Your task to perform on an android device: toggle priority inbox in the gmail app Image 0: 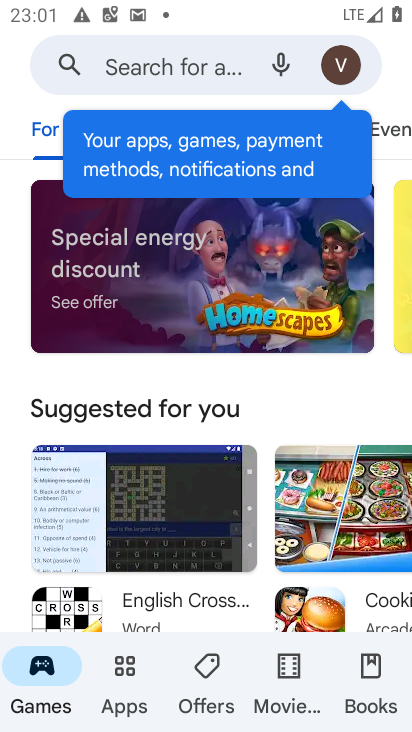
Step 0: press home button
Your task to perform on an android device: toggle priority inbox in the gmail app Image 1: 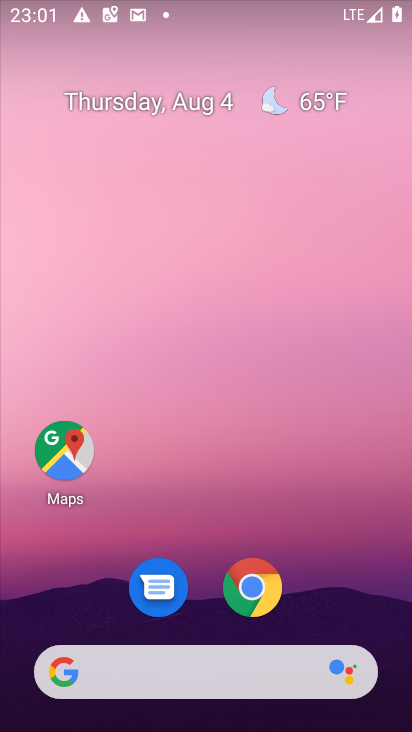
Step 1: drag from (184, 643) to (204, 310)
Your task to perform on an android device: toggle priority inbox in the gmail app Image 2: 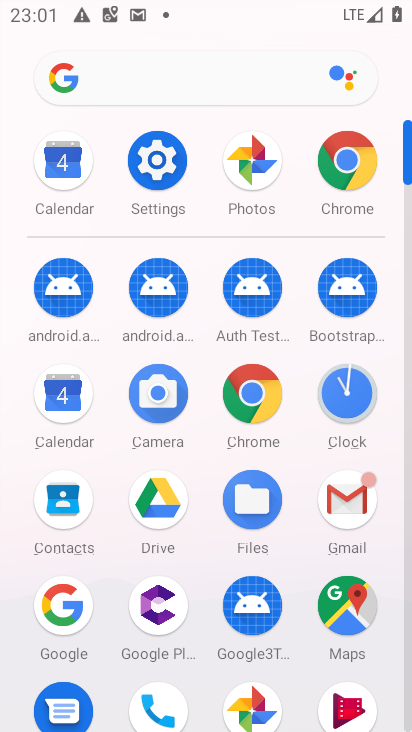
Step 2: click (347, 496)
Your task to perform on an android device: toggle priority inbox in the gmail app Image 3: 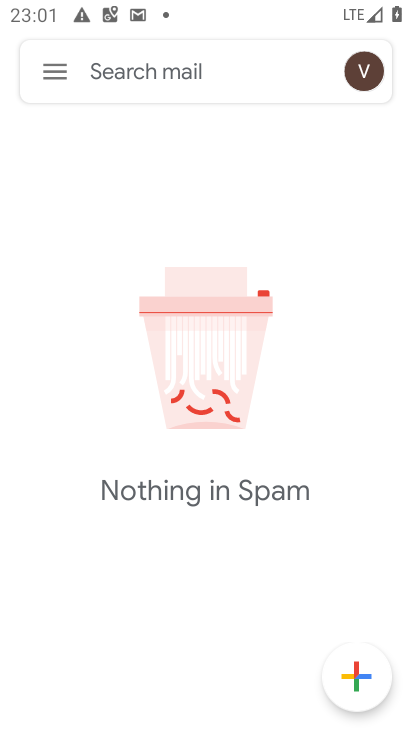
Step 3: click (59, 61)
Your task to perform on an android device: toggle priority inbox in the gmail app Image 4: 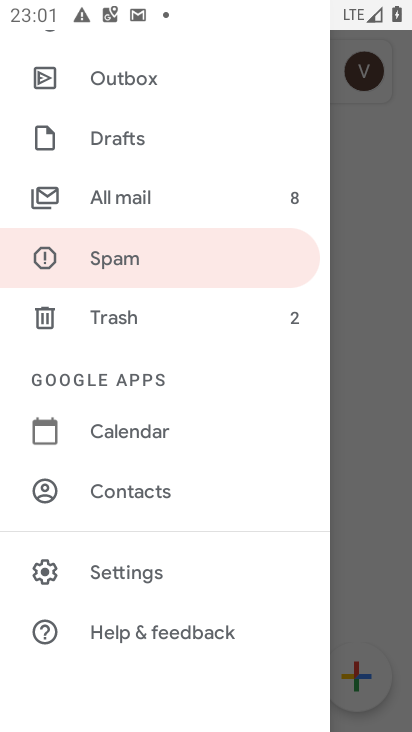
Step 4: click (134, 551)
Your task to perform on an android device: toggle priority inbox in the gmail app Image 5: 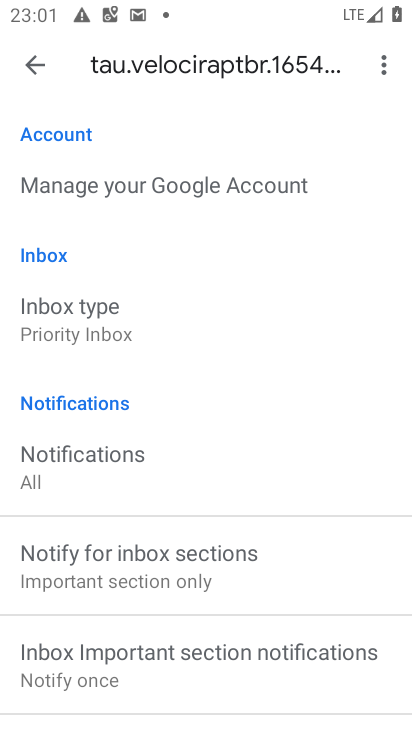
Step 5: click (107, 317)
Your task to perform on an android device: toggle priority inbox in the gmail app Image 6: 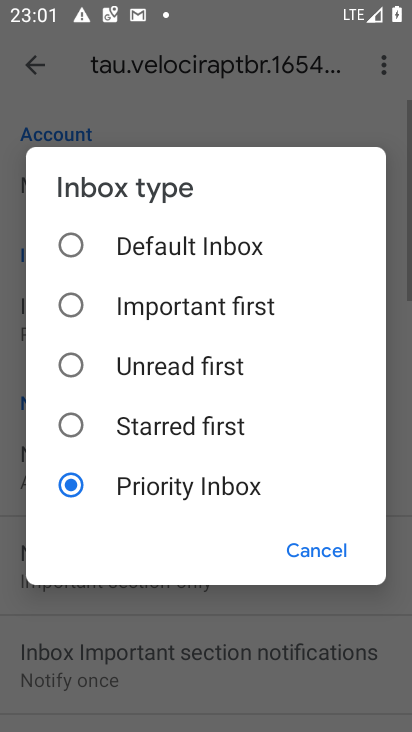
Step 6: click (126, 235)
Your task to perform on an android device: toggle priority inbox in the gmail app Image 7: 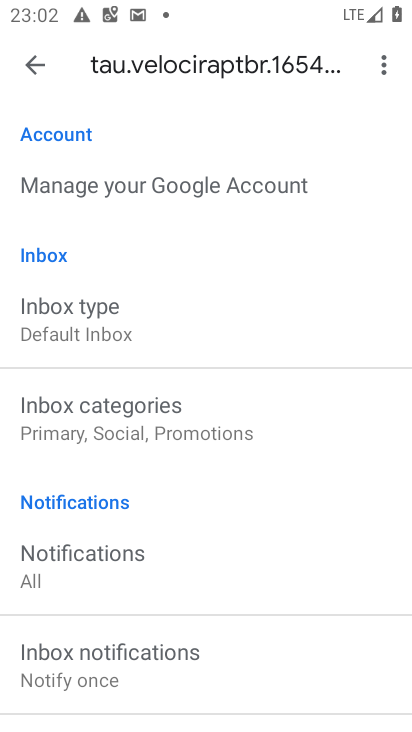
Step 7: task complete